Your task to perform on an android device: Open Google Chrome and open the bookmarks view Image 0: 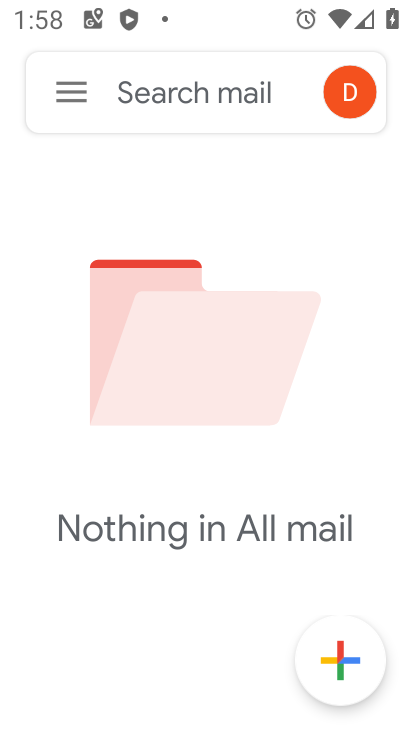
Step 0: press home button
Your task to perform on an android device: Open Google Chrome and open the bookmarks view Image 1: 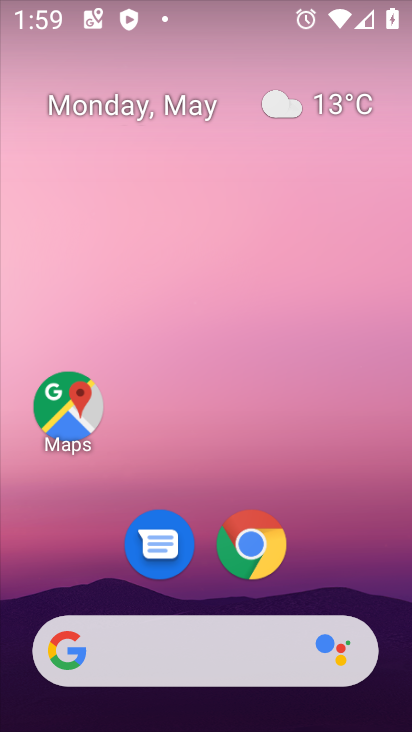
Step 1: click (253, 549)
Your task to perform on an android device: Open Google Chrome and open the bookmarks view Image 2: 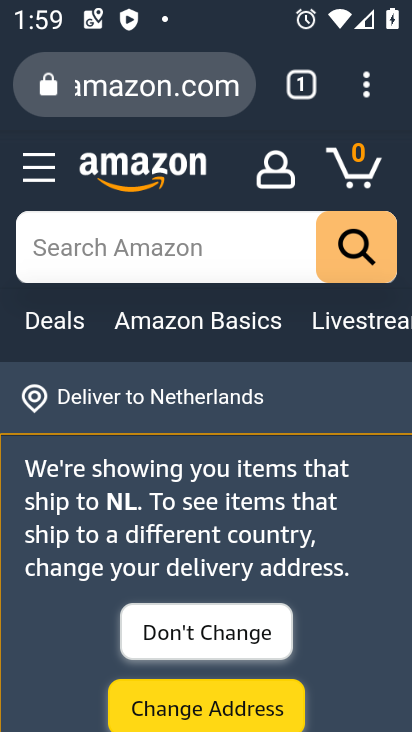
Step 2: click (365, 95)
Your task to perform on an android device: Open Google Chrome and open the bookmarks view Image 3: 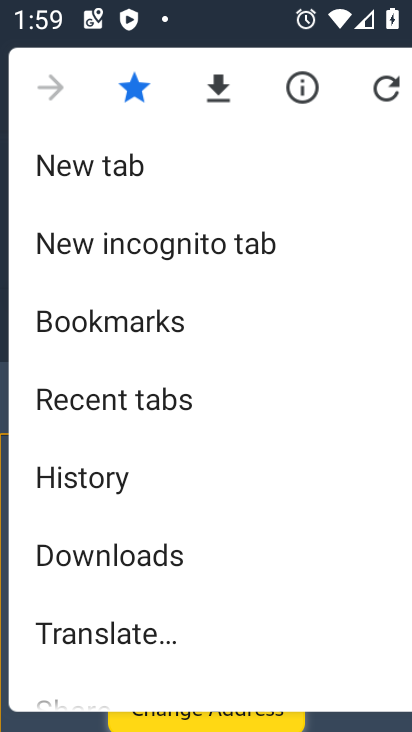
Step 3: drag from (247, 587) to (265, 289)
Your task to perform on an android device: Open Google Chrome and open the bookmarks view Image 4: 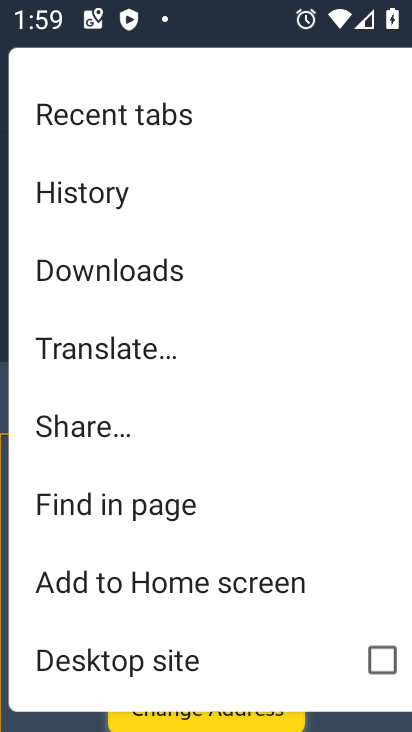
Step 4: drag from (309, 545) to (280, 301)
Your task to perform on an android device: Open Google Chrome and open the bookmarks view Image 5: 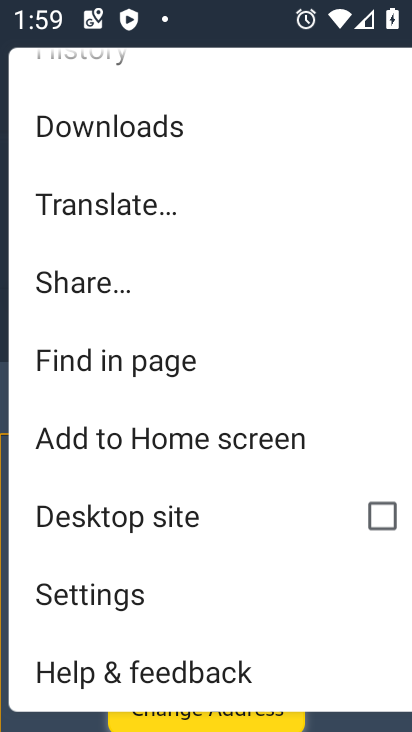
Step 5: drag from (361, 229) to (334, 403)
Your task to perform on an android device: Open Google Chrome and open the bookmarks view Image 6: 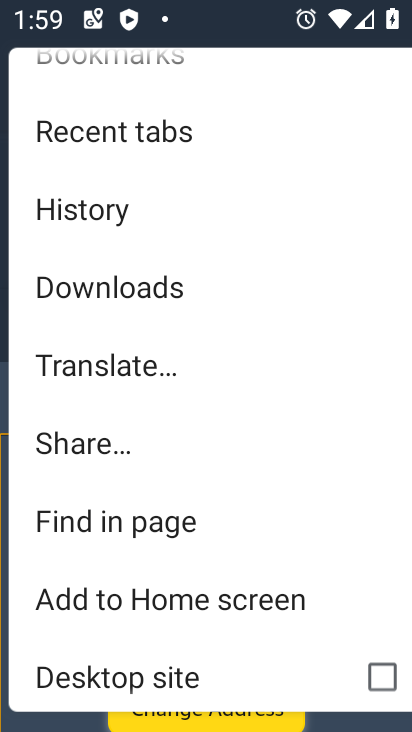
Step 6: drag from (290, 228) to (282, 397)
Your task to perform on an android device: Open Google Chrome and open the bookmarks view Image 7: 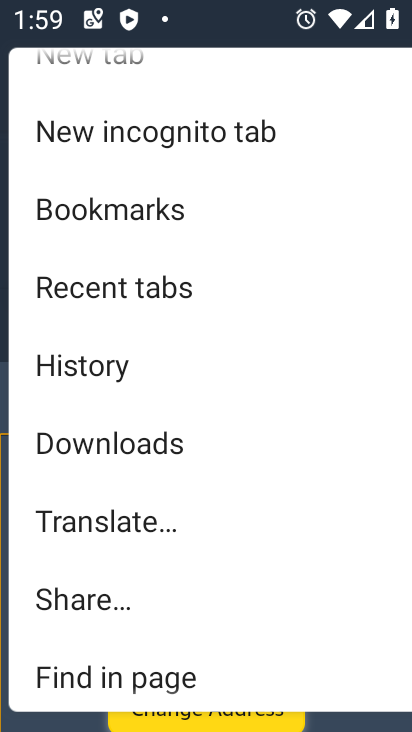
Step 7: click (114, 201)
Your task to perform on an android device: Open Google Chrome and open the bookmarks view Image 8: 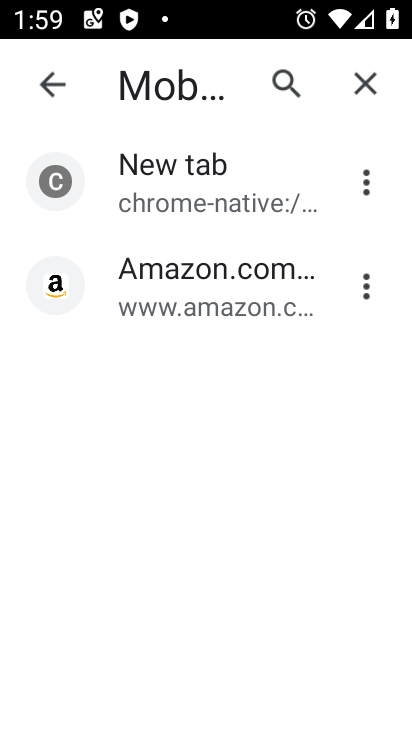
Step 8: task complete